Your task to perform on an android device: Open my contact list Image 0: 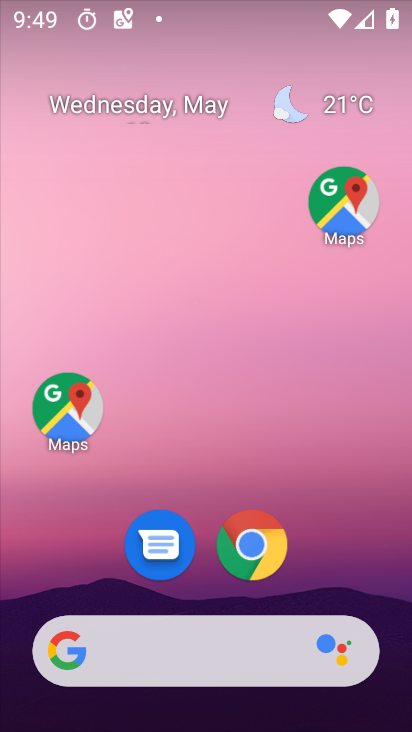
Step 0: drag from (308, 596) to (367, 18)
Your task to perform on an android device: Open my contact list Image 1: 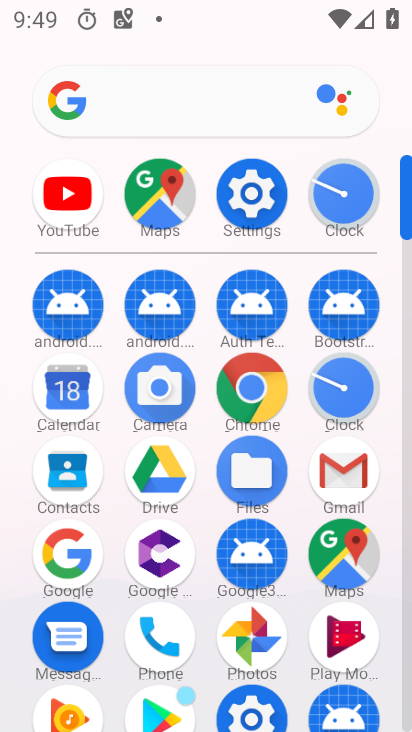
Step 1: click (50, 468)
Your task to perform on an android device: Open my contact list Image 2: 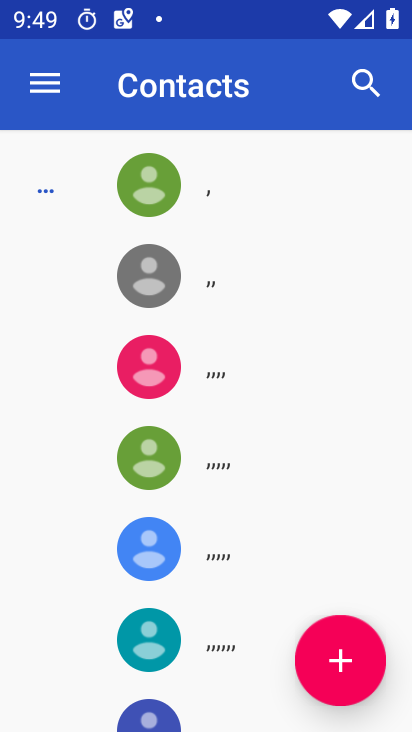
Step 2: task complete